Your task to perform on an android device: change your default location settings in chrome Image 0: 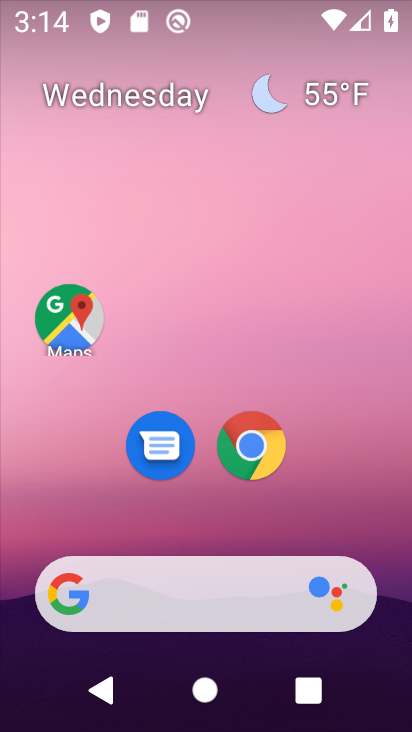
Step 0: click (258, 440)
Your task to perform on an android device: change your default location settings in chrome Image 1: 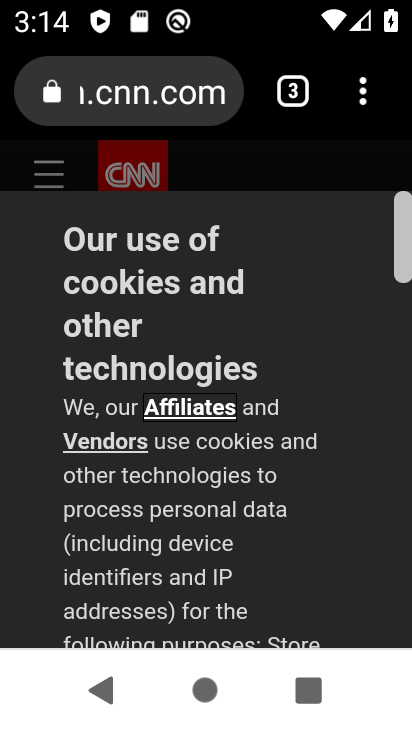
Step 1: click (361, 90)
Your task to perform on an android device: change your default location settings in chrome Image 2: 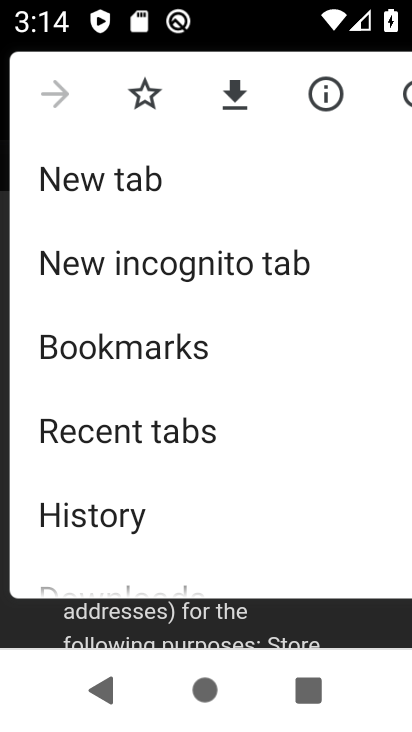
Step 2: drag from (279, 534) to (281, 493)
Your task to perform on an android device: change your default location settings in chrome Image 3: 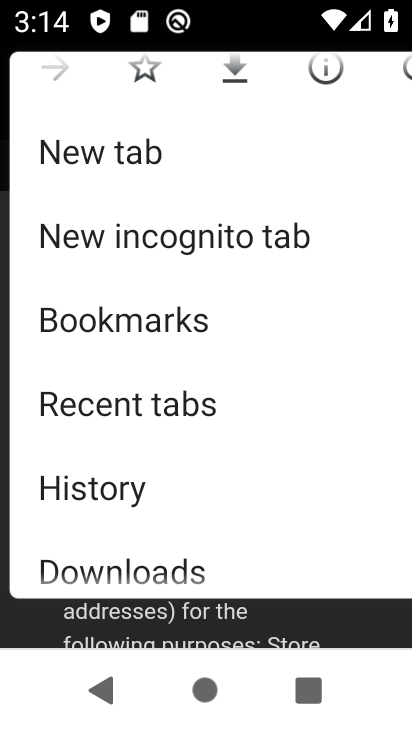
Step 3: drag from (323, 551) to (290, 458)
Your task to perform on an android device: change your default location settings in chrome Image 4: 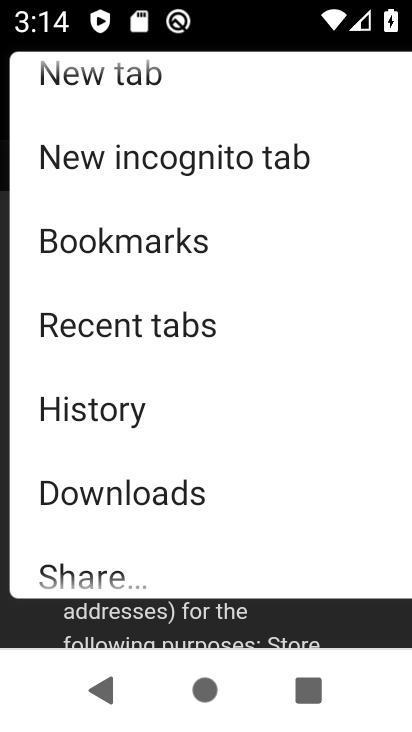
Step 4: drag from (277, 243) to (257, 67)
Your task to perform on an android device: change your default location settings in chrome Image 5: 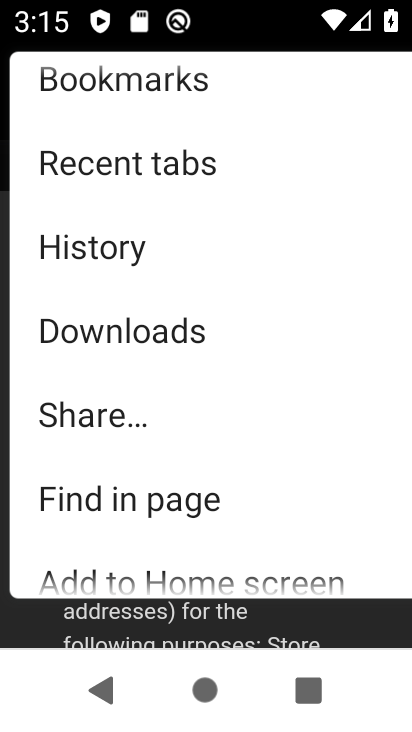
Step 5: drag from (257, 67) to (224, 0)
Your task to perform on an android device: change your default location settings in chrome Image 6: 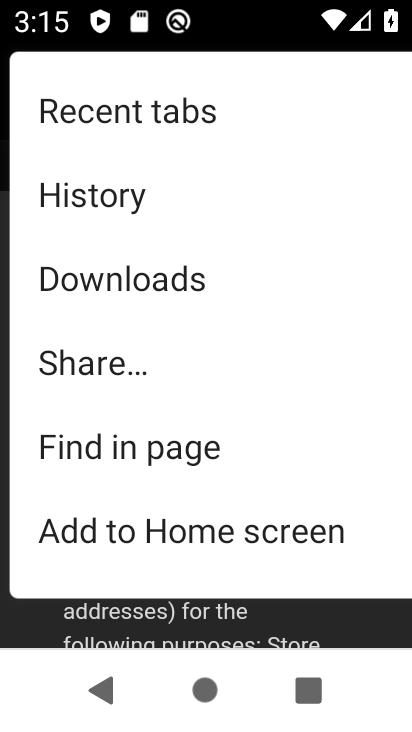
Step 6: drag from (264, 488) to (248, 243)
Your task to perform on an android device: change your default location settings in chrome Image 7: 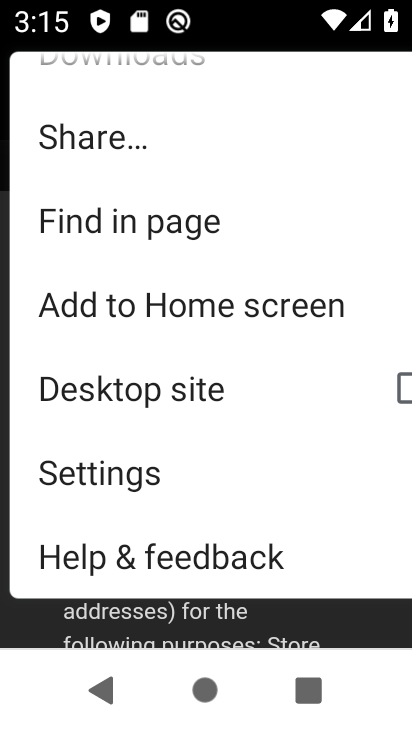
Step 7: click (102, 470)
Your task to perform on an android device: change your default location settings in chrome Image 8: 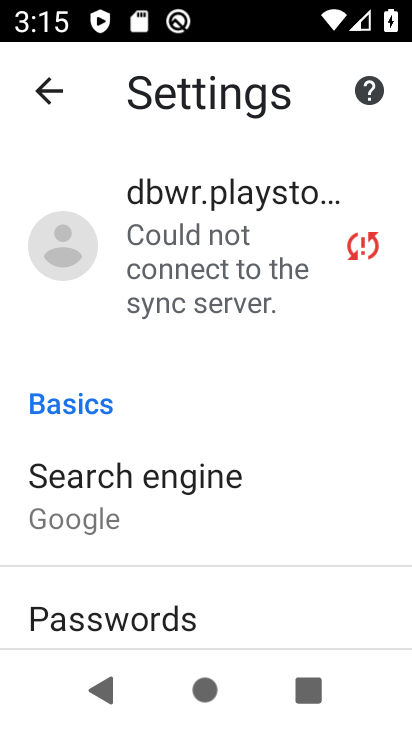
Step 8: drag from (151, 600) to (153, 369)
Your task to perform on an android device: change your default location settings in chrome Image 9: 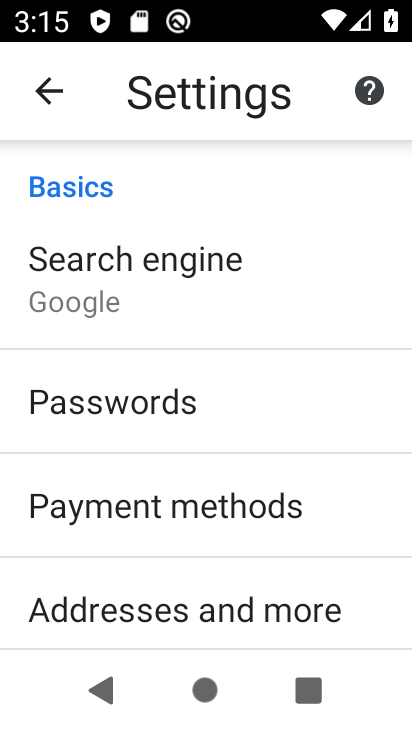
Step 9: drag from (153, 369) to (109, 91)
Your task to perform on an android device: change your default location settings in chrome Image 10: 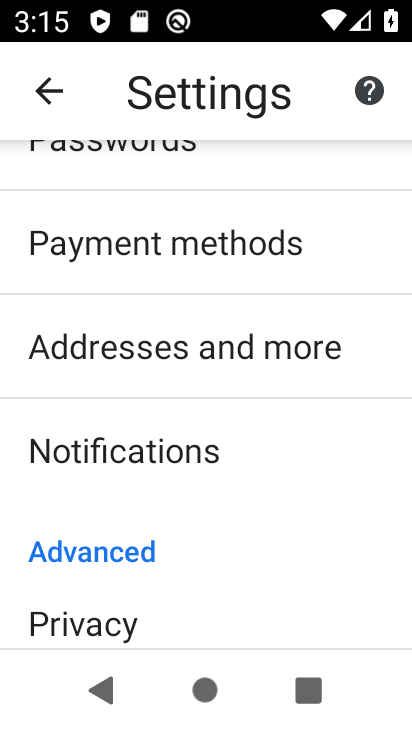
Step 10: drag from (225, 494) to (207, 234)
Your task to perform on an android device: change your default location settings in chrome Image 11: 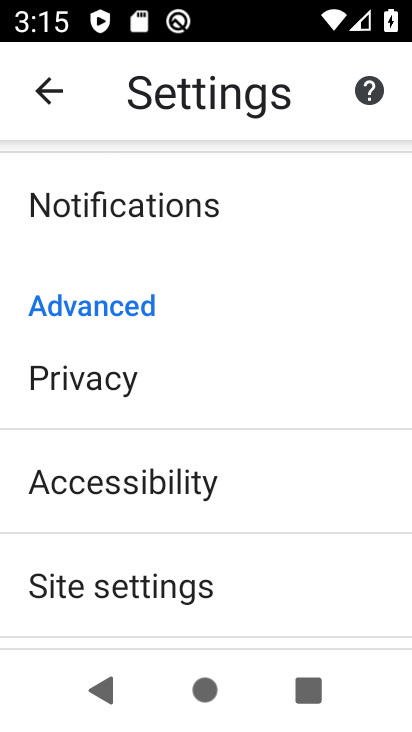
Step 11: click (173, 389)
Your task to perform on an android device: change your default location settings in chrome Image 12: 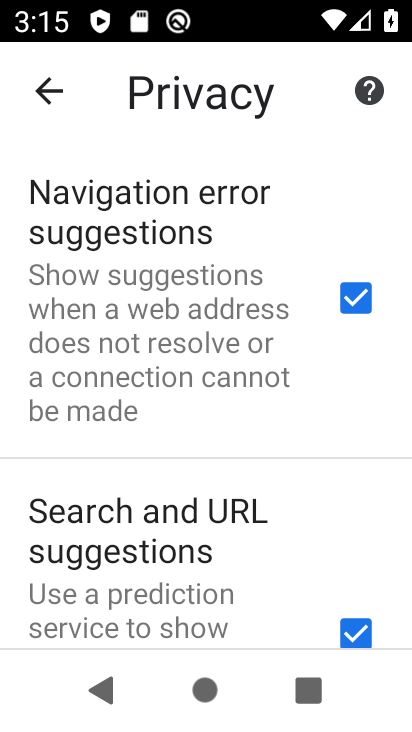
Step 12: press back button
Your task to perform on an android device: change your default location settings in chrome Image 13: 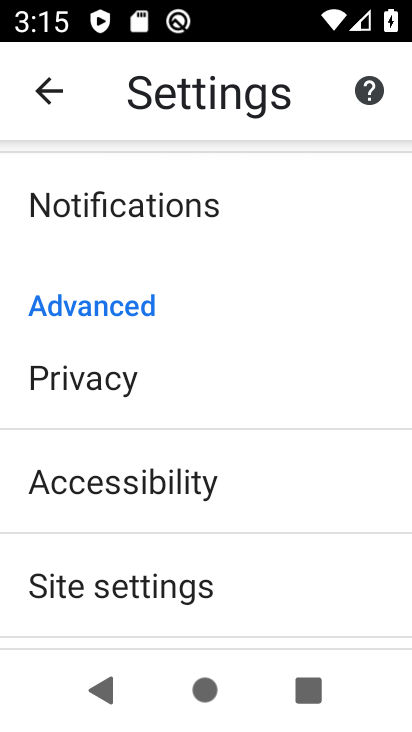
Step 13: click (268, 560)
Your task to perform on an android device: change your default location settings in chrome Image 14: 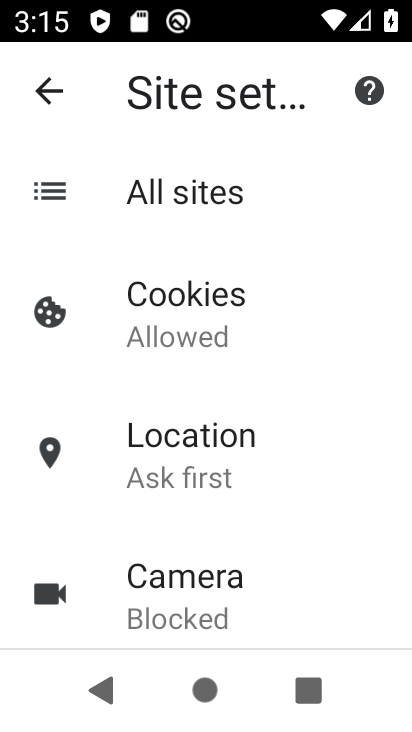
Step 14: click (229, 464)
Your task to perform on an android device: change your default location settings in chrome Image 15: 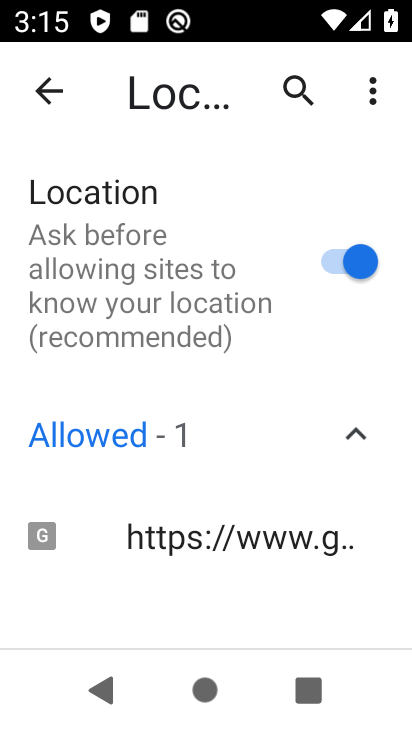
Step 15: click (330, 276)
Your task to perform on an android device: change your default location settings in chrome Image 16: 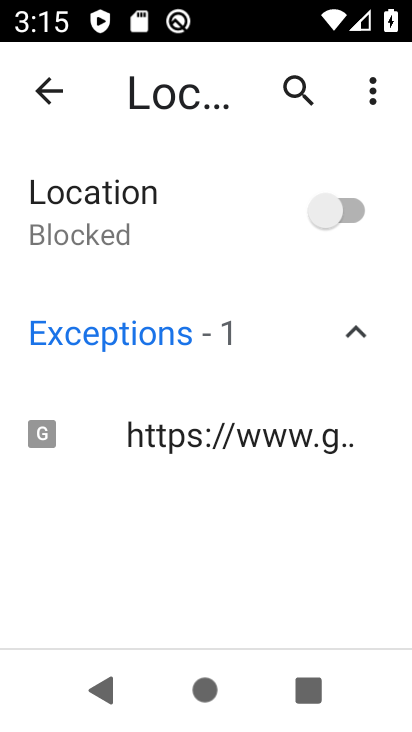
Step 16: task complete